Your task to perform on an android device: add a label to a message in the gmail app Image 0: 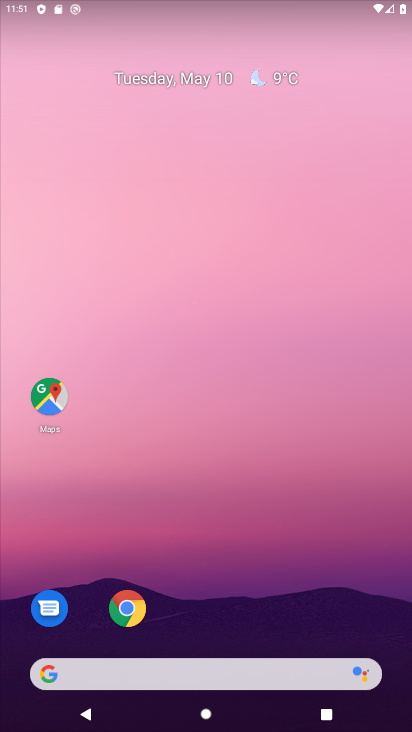
Step 0: drag from (257, 654) to (272, 178)
Your task to perform on an android device: add a label to a message in the gmail app Image 1: 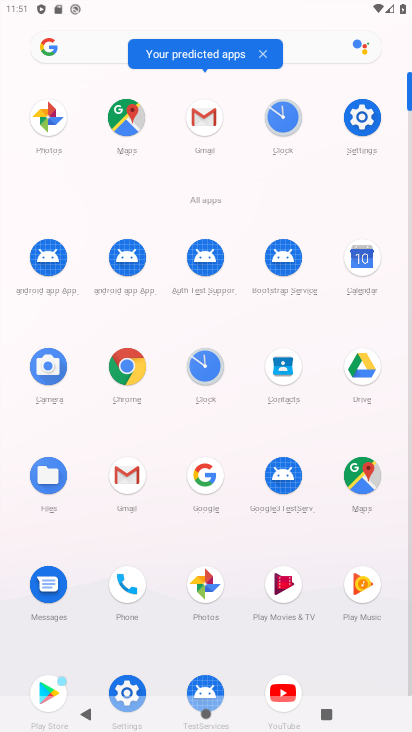
Step 1: click (142, 488)
Your task to perform on an android device: add a label to a message in the gmail app Image 2: 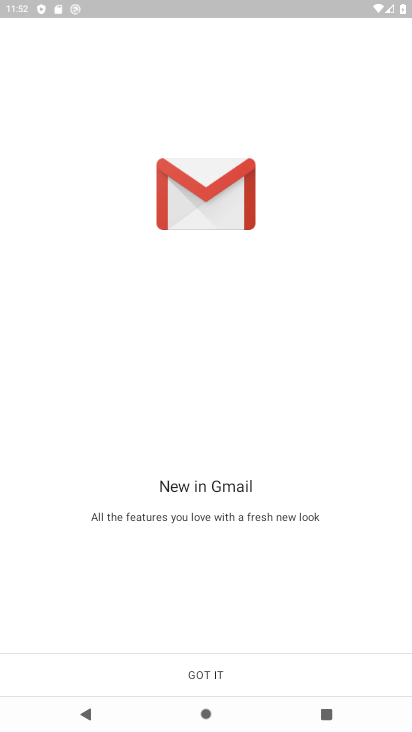
Step 2: click (233, 672)
Your task to perform on an android device: add a label to a message in the gmail app Image 3: 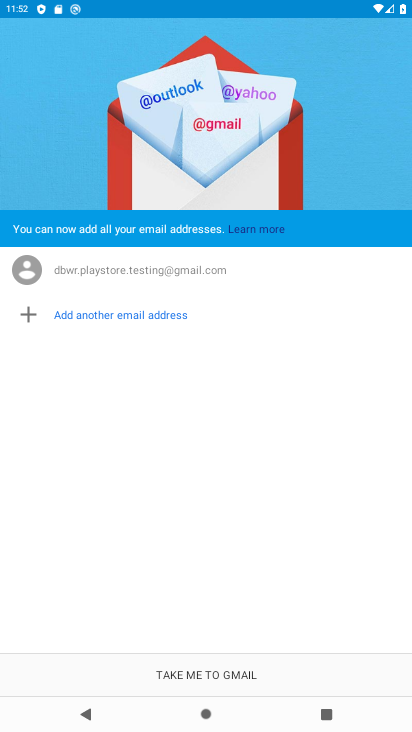
Step 3: click (229, 672)
Your task to perform on an android device: add a label to a message in the gmail app Image 4: 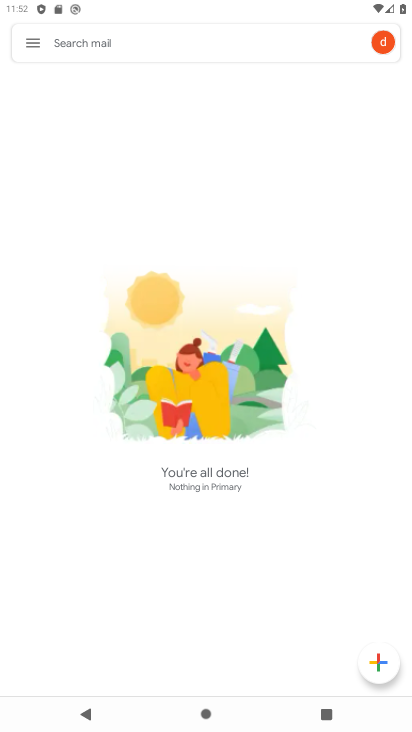
Step 4: click (33, 42)
Your task to perform on an android device: add a label to a message in the gmail app Image 5: 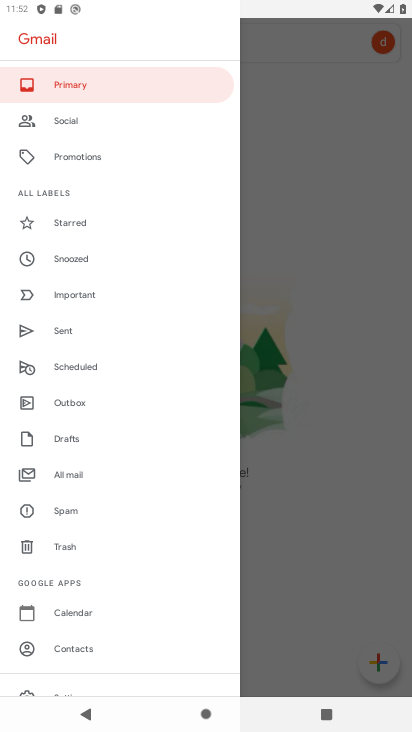
Step 5: click (78, 478)
Your task to perform on an android device: add a label to a message in the gmail app Image 6: 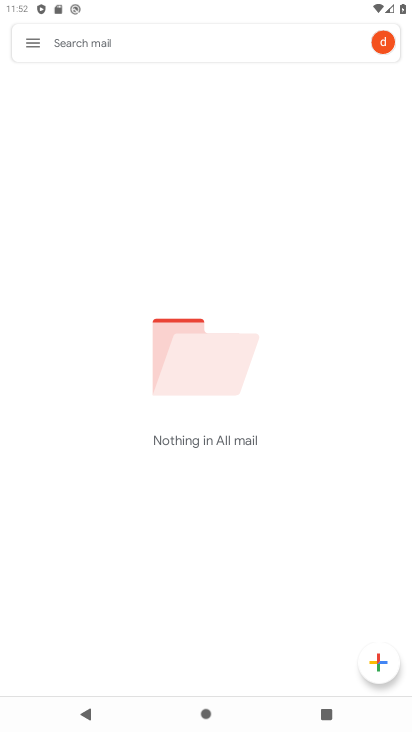
Step 6: task complete